Your task to perform on an android device: Open Google Chrome Image 0: 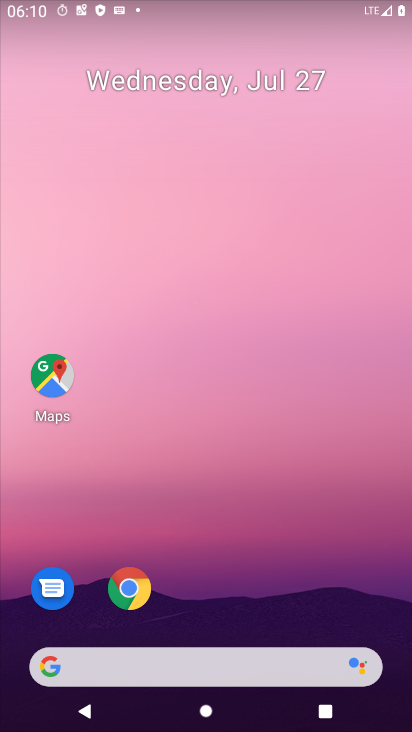
Step 0: drag from (198, 682) to (272, 120)
Your task to perform on an android device: Open Google Chrome Image 1: 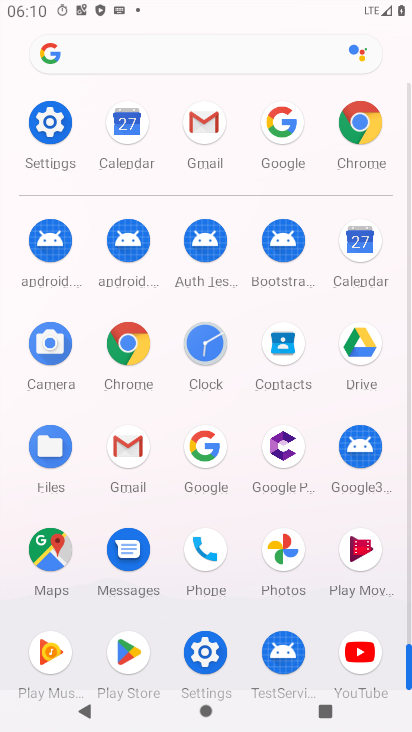
Step 1: click (127, 353)
Your task to perform on an android device: Open Google Chrome Image 2: 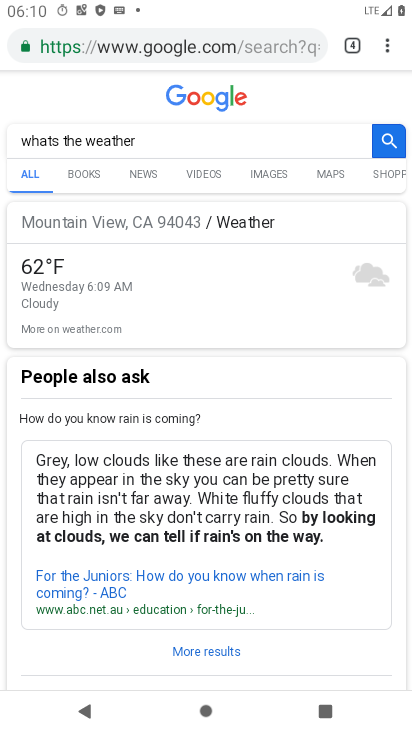
Step 2: task complete